Your task to perform on an android device: check out phone information Image 0: 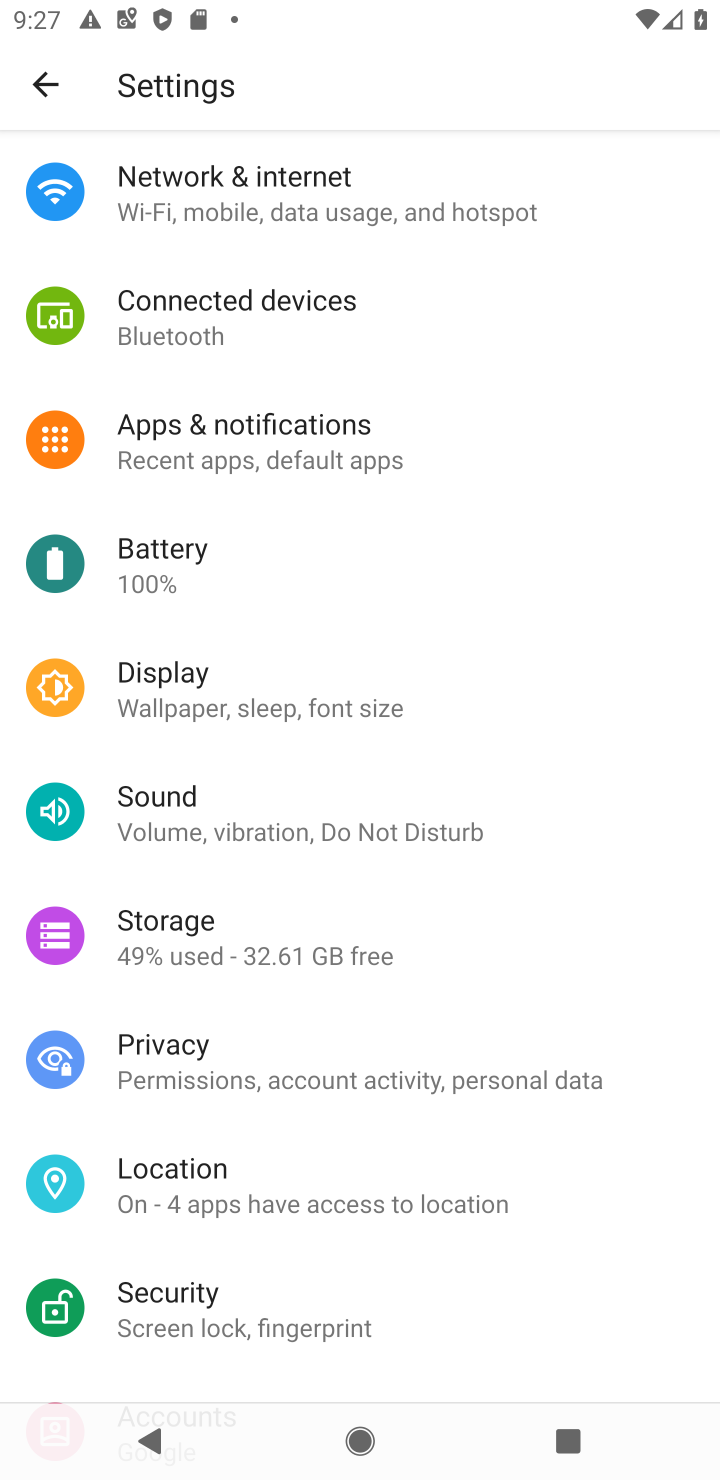
Step 0: drag from (278, 762) to (292, 547)
Your task to perform on an android device: check out phone information Image 1: 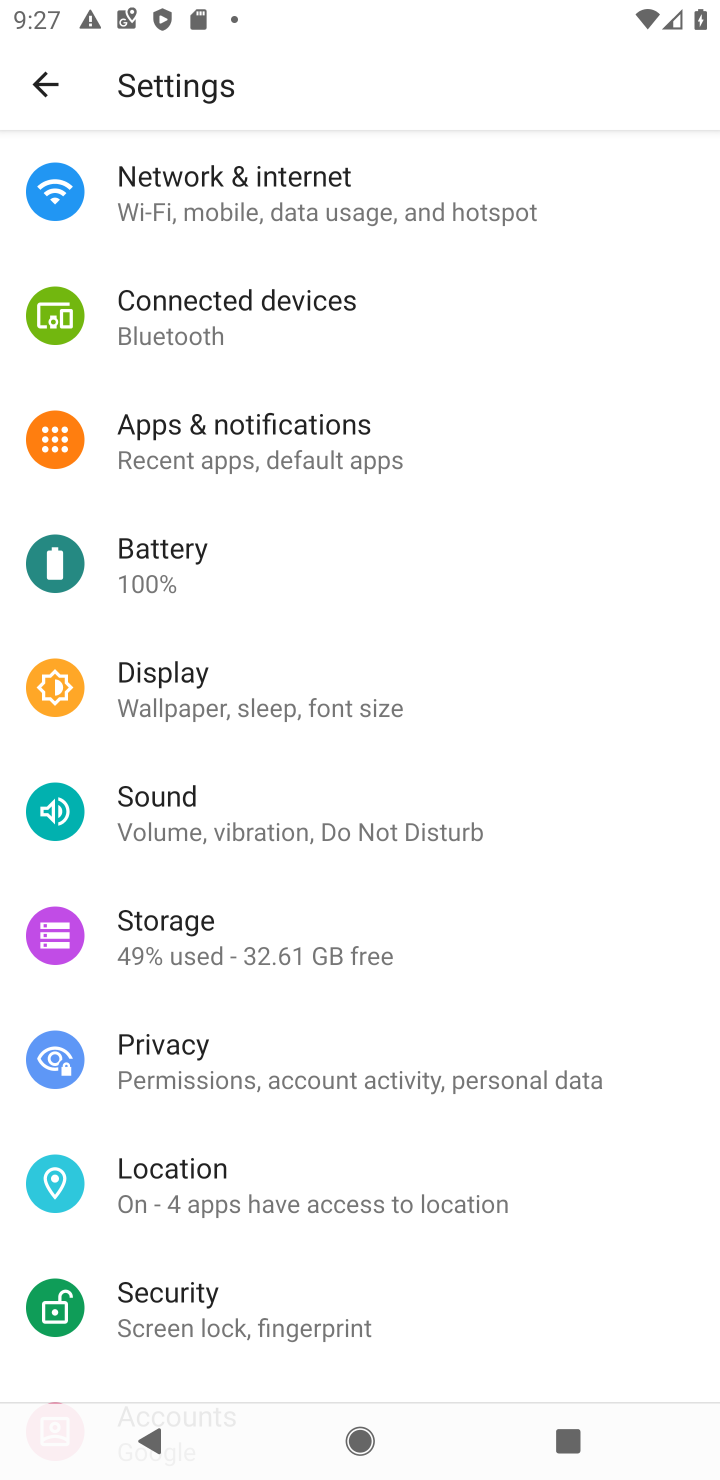
Step 1: drag from (285, 1303) to (287, 571)
Your task to perform on an android device: check out phone information Image 2: 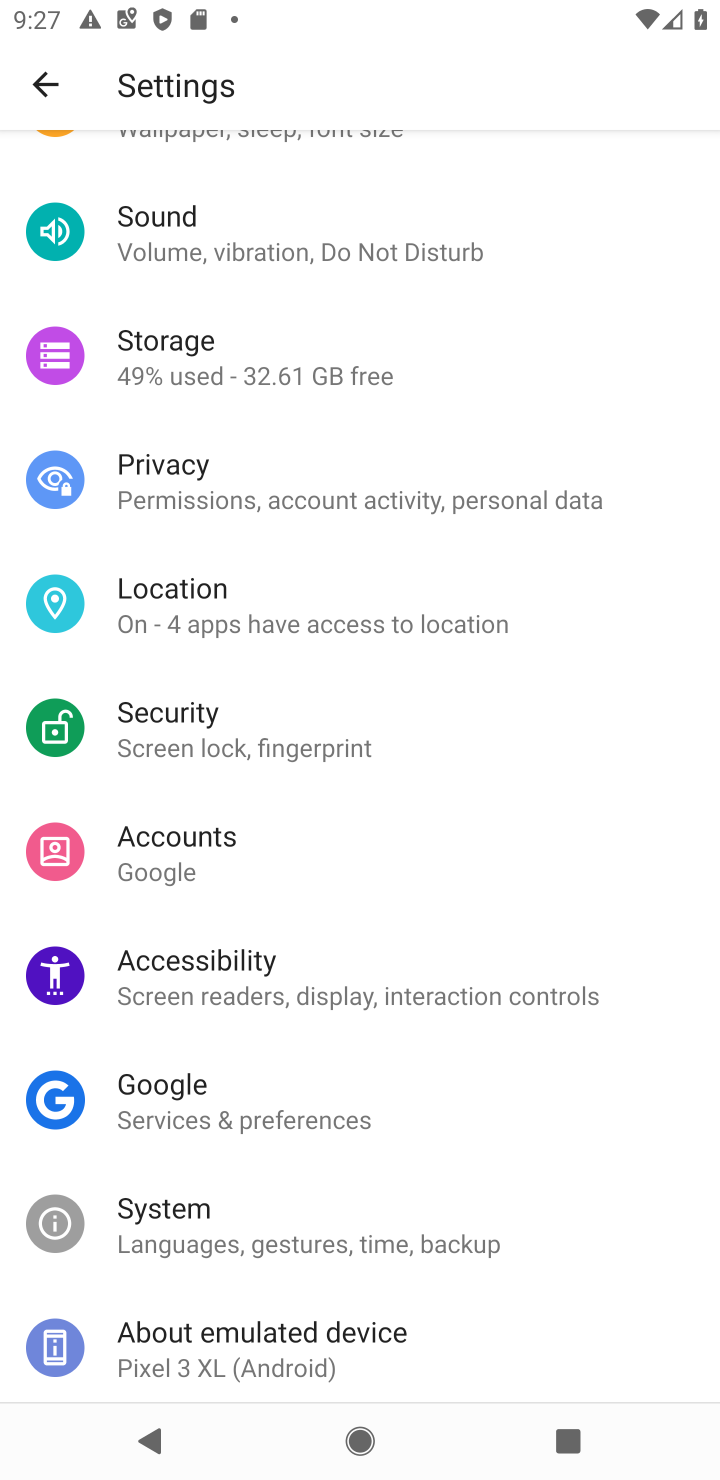
Step 2: click (242, 1369)
Your task to perform on an android device: check out phone information Image 3: 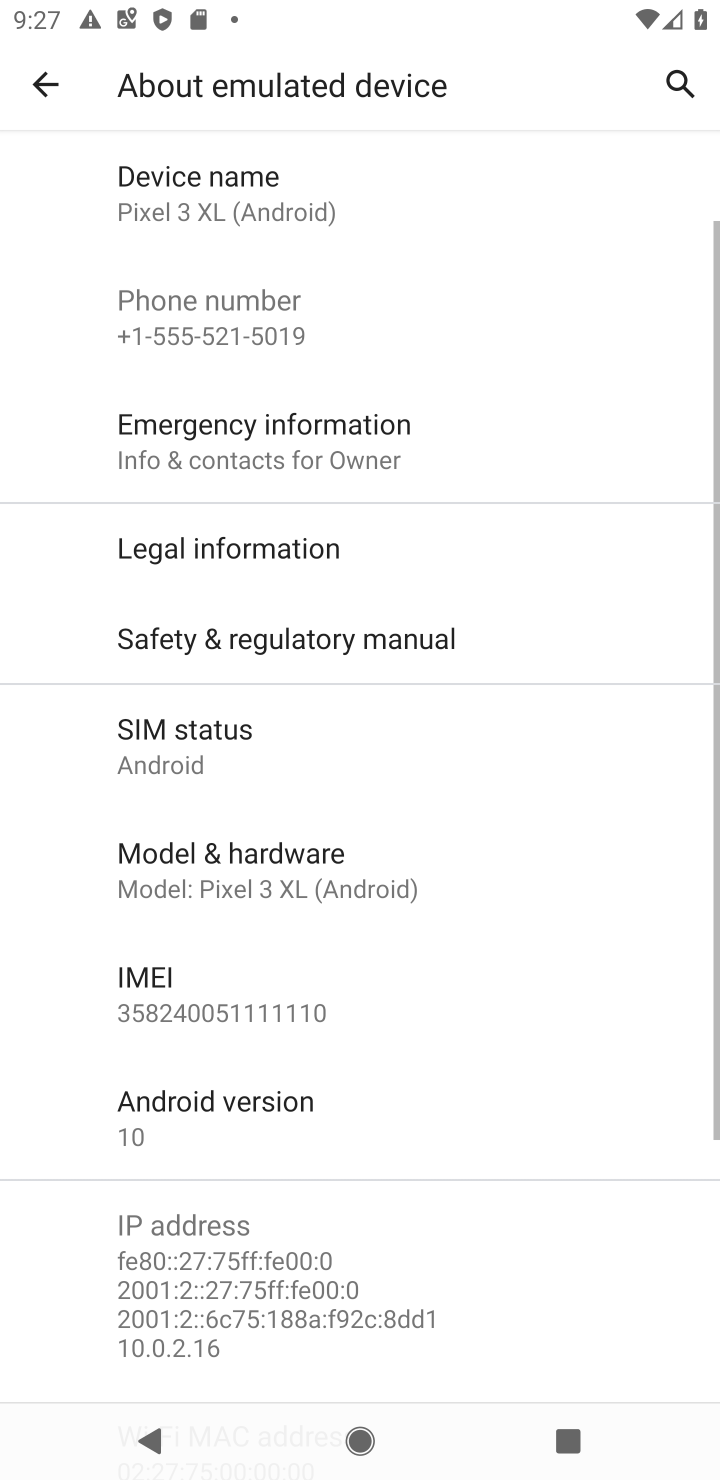
Step 3: task complete